Your task to perform on an android device: Open calendar and show me the second week of next month Image 0: 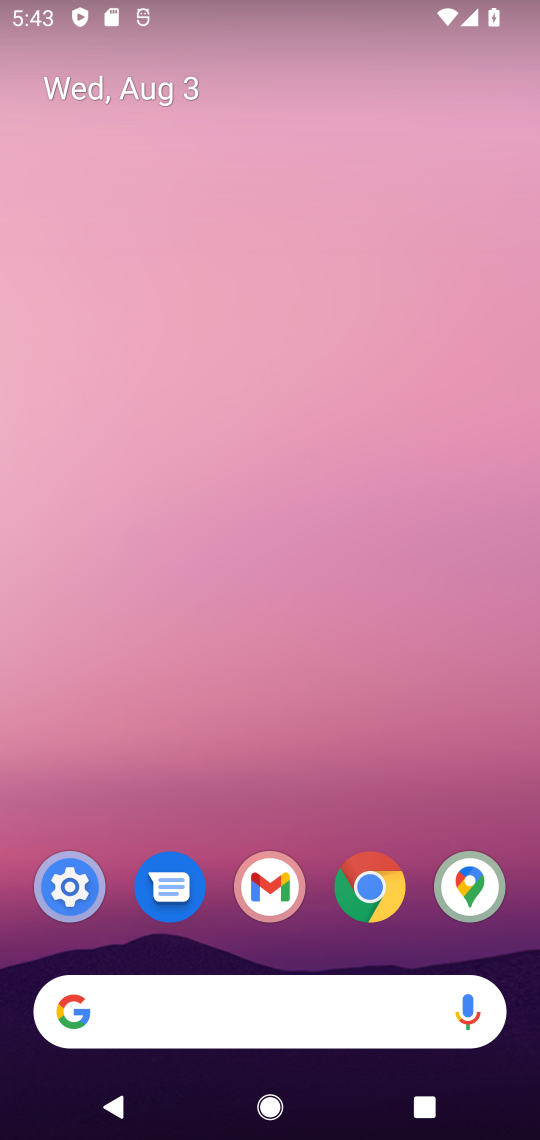
Step 0: drag from (298, 933) to (252, 146)
Your task to perform on an android device: Open calendar and show me the second week of next month Image 1: 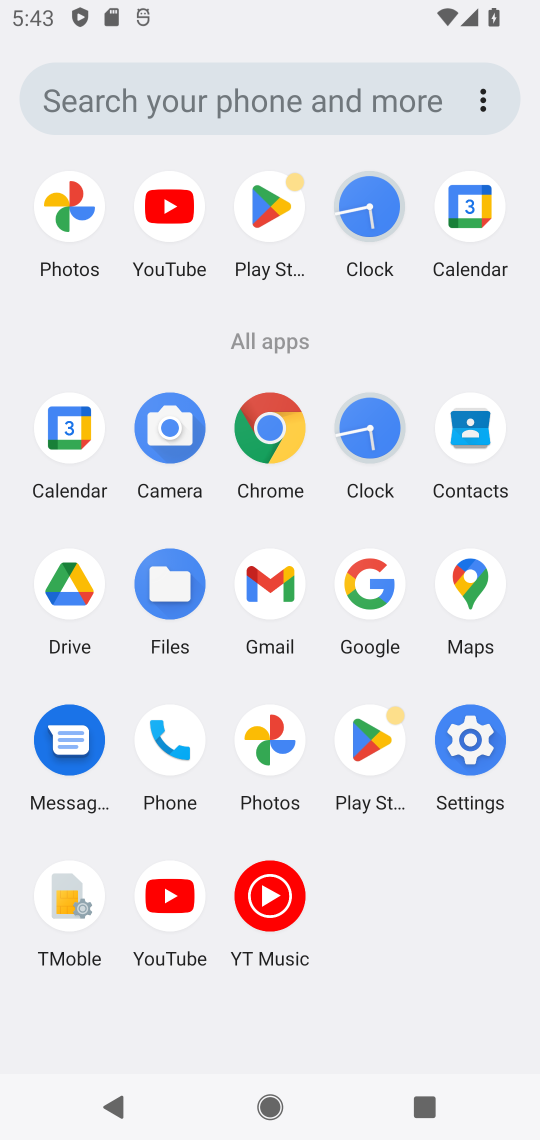
Step 1: click (78, 432)
Your task to perform on an android device: Open calendar and show me the second week of next month Image 2: 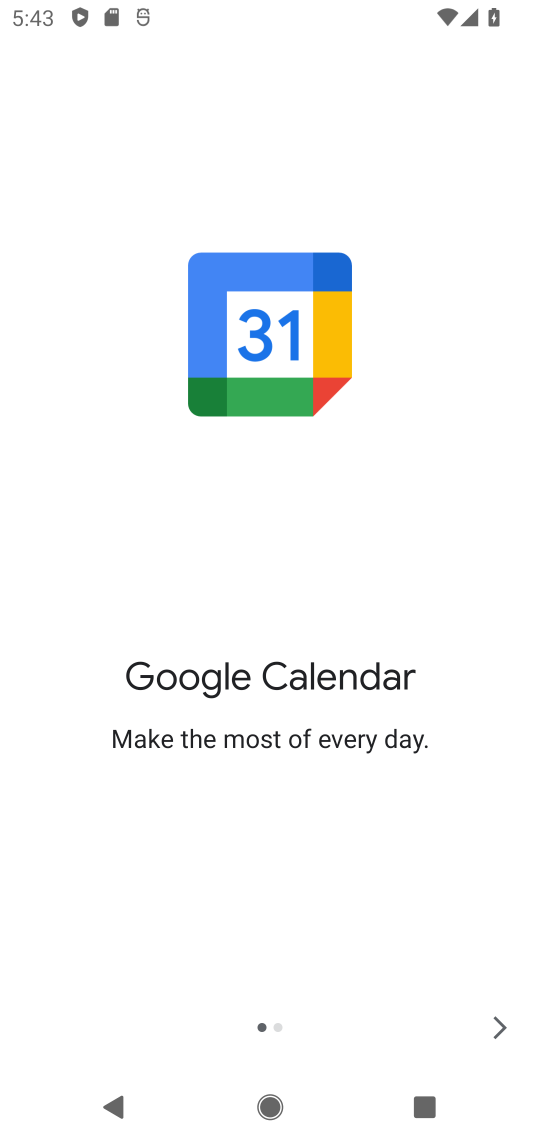
Step 2: click (502, 1034)
Your task to perform on an android device: Open calendar and show me the second week of next month Image 3: 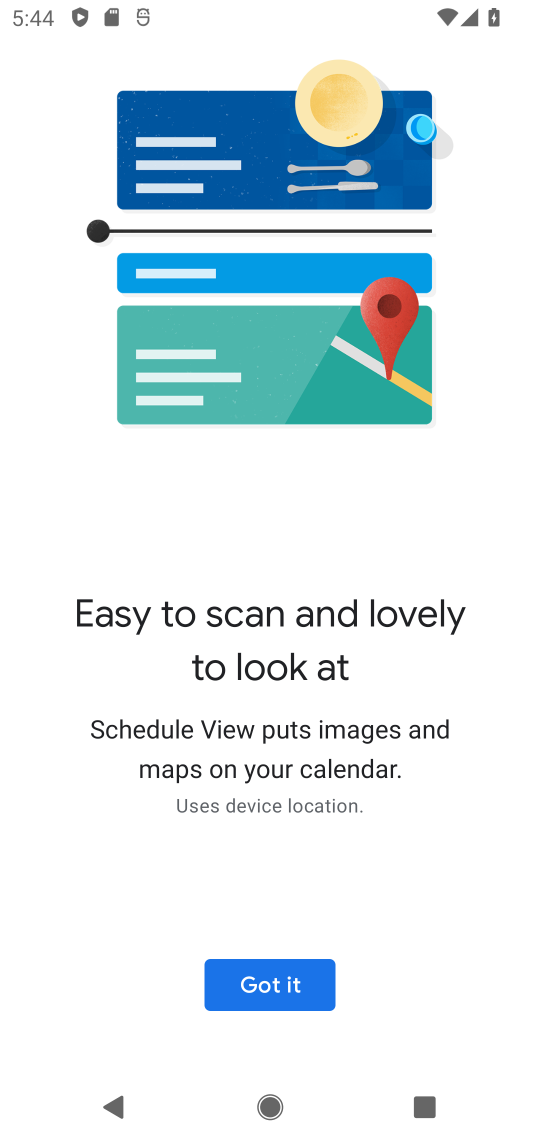
Step 3: click (286, 976)
Your task to perform on an android device: Open calendar and show me the second week of next month Image 4: 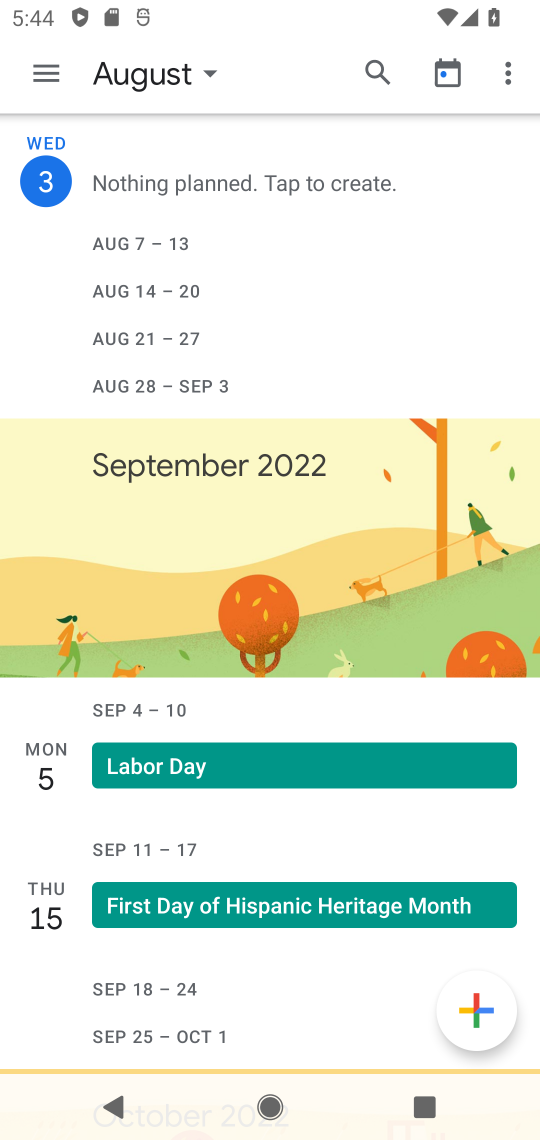
Step 4: task complete